Your task to perform on an android device: turn off wifi Image 0: 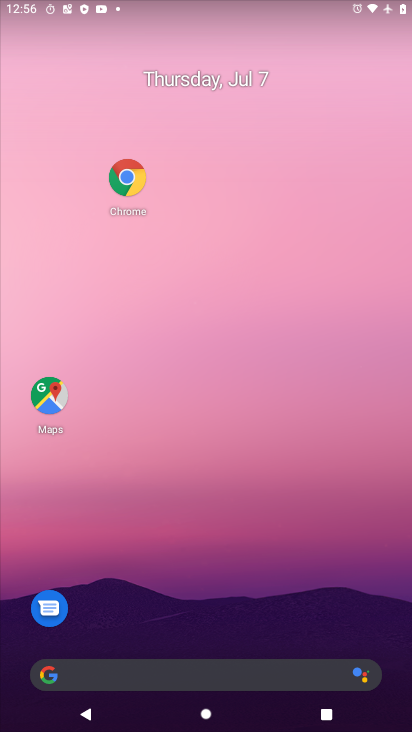
Step 0: task complete